Your task to perform on an android device: Open location settings Image 0: 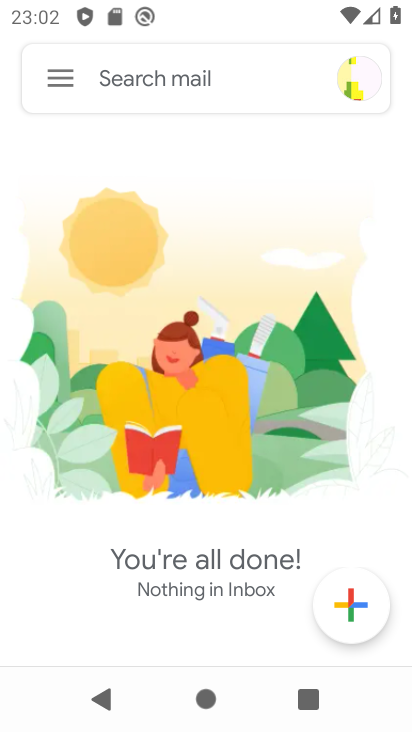
Step 0: press home button
Your task to perform on an android device: Open location settings Image 1: 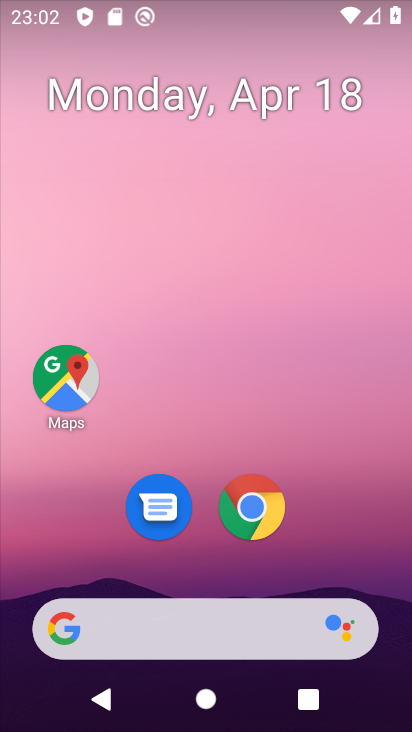
Step 1: drag from (310, 514) to (274, 91)
Your task to perform on an android device: Open location settings Image 2: 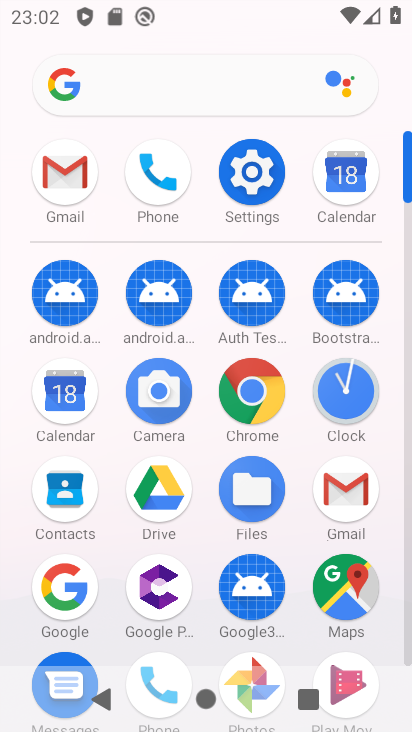
Step 2: click (239, 164)
Your task to perform on an android device: Open location settings Image 3: 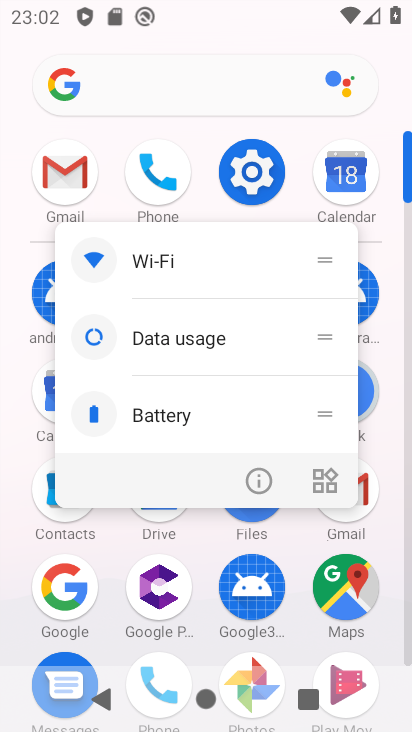
Step 3: click (239, 164)
Your task to perform on an android device: Open location settings Image 4: 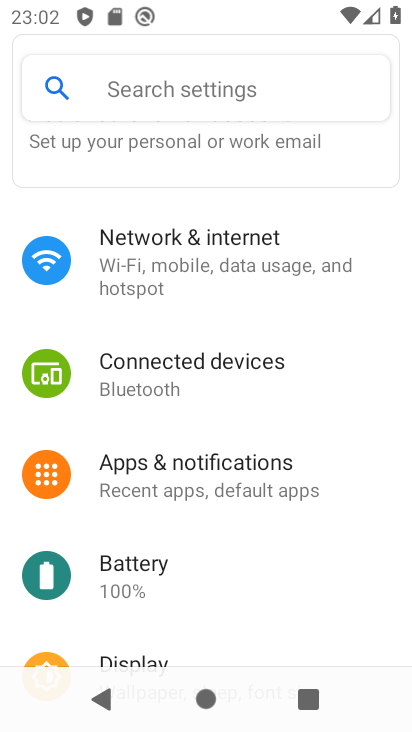
Step 4: drag from (198, 549) to (256, 247)
Your task to perform on an android device: Open location settings Image 5: 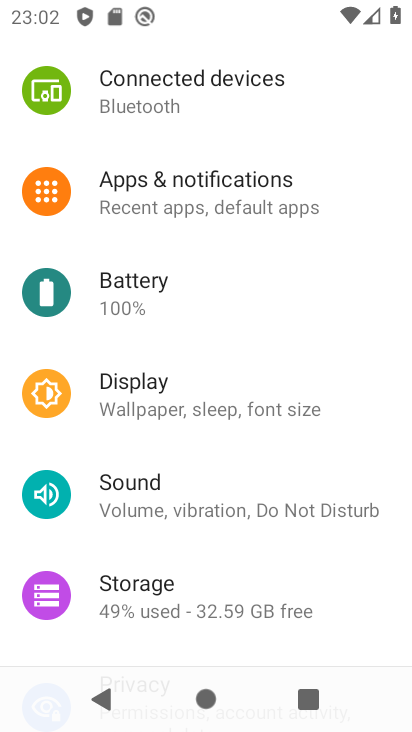
Step 5: drag from (236, 525) to (244, 146)
Your task to perform on an android device: Open location settings Image 6: 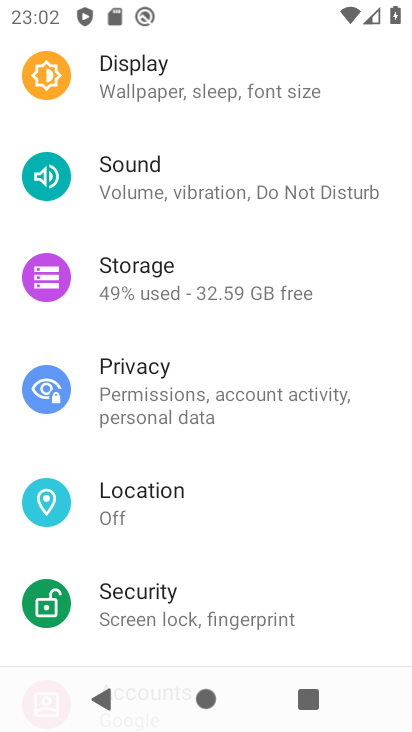
Step 6: click (213, 505)
Your task to perform on an android device: Open location settings Image 7: 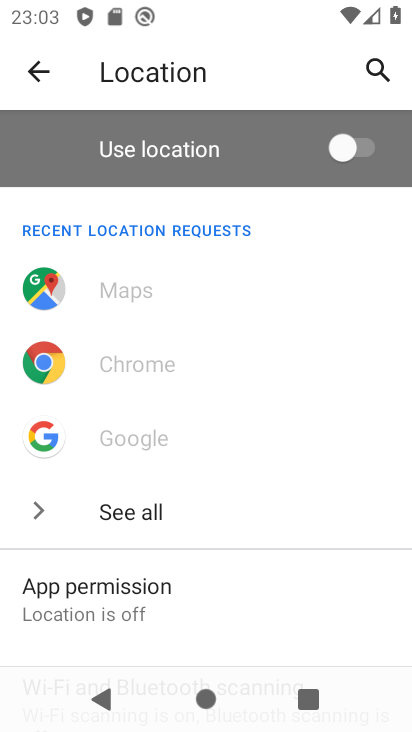
Step 7: task complete